Your task to perform on an android device: open app "Duolingo: language lessons" (install if not already installed) and go to login screen Image 0: 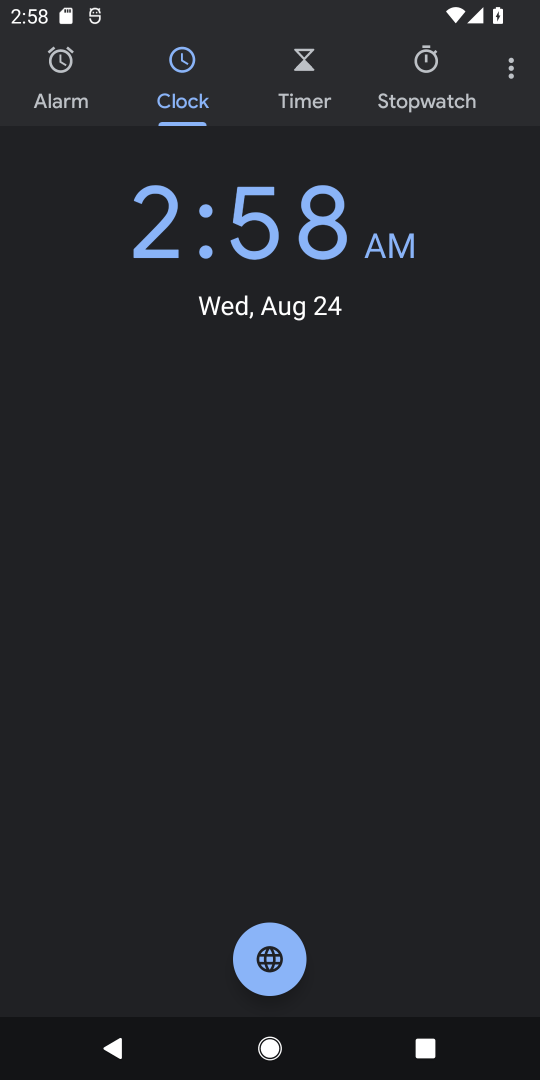
Step 0: press home button
Your task to perform on an android device: open app "Duolingo: language lessons" (install if not already installed) and go to login screen Image 1: 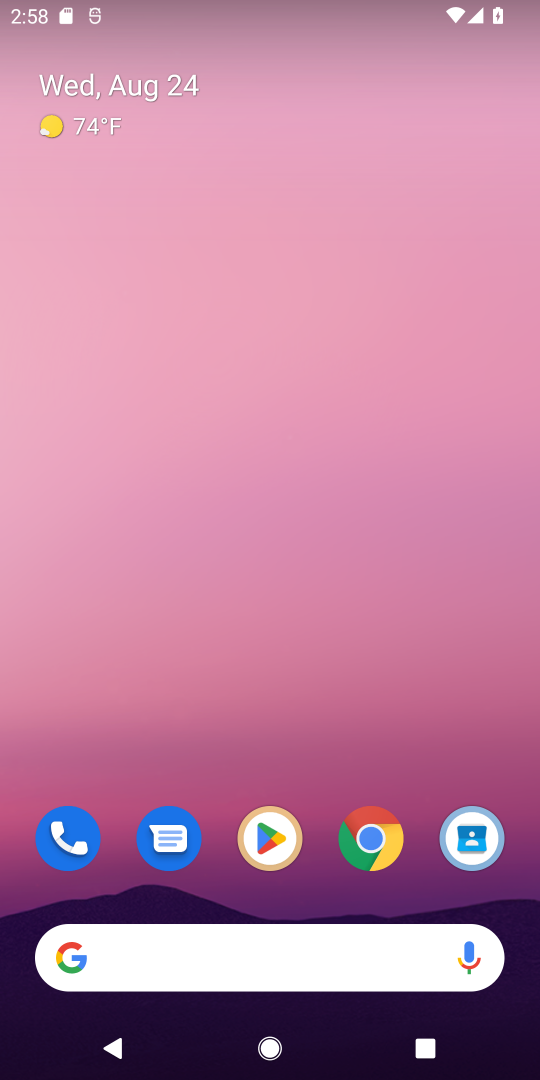
Step 1: click (261, 824)
Your task to perform on an android device: open app "Duolingo: language lessons" (install if not already installed) and go to login screen Image 2: 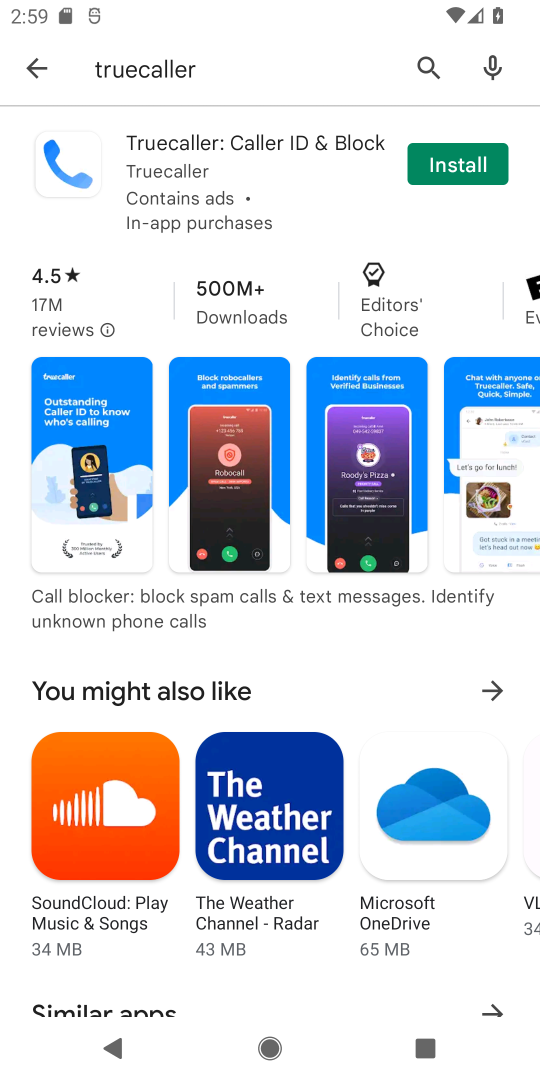
Step 2: click (428, 70)
Your task to perform on an android device: open app "Duolingo: language lessons" (install if not already installed) and go to login screen Image 3: 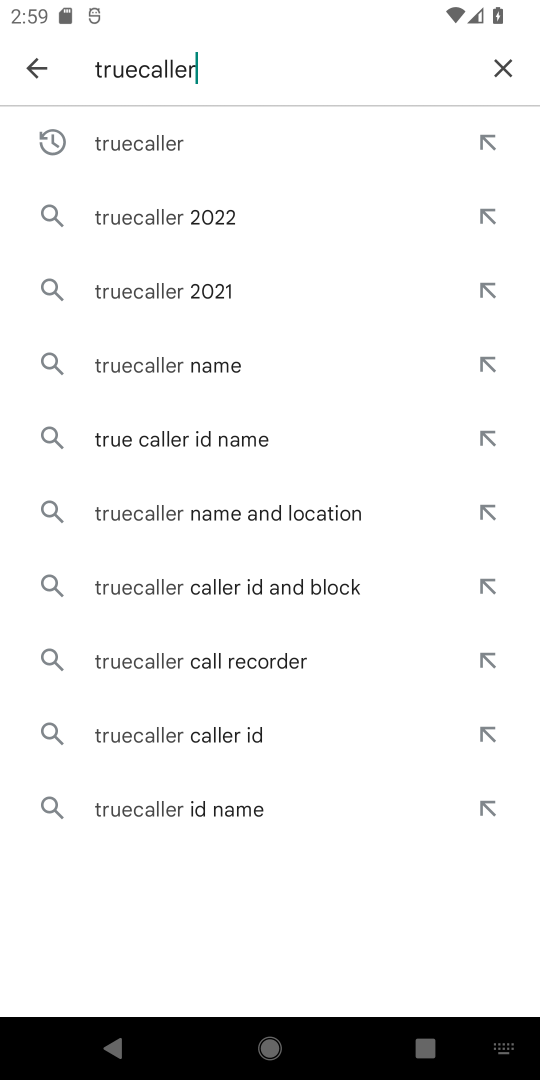
Step 3: click (505, 70)
Your task to perform on an android device: open app "Duolingo: language lessons" (install if not already installed) and go to login screen Image 4: 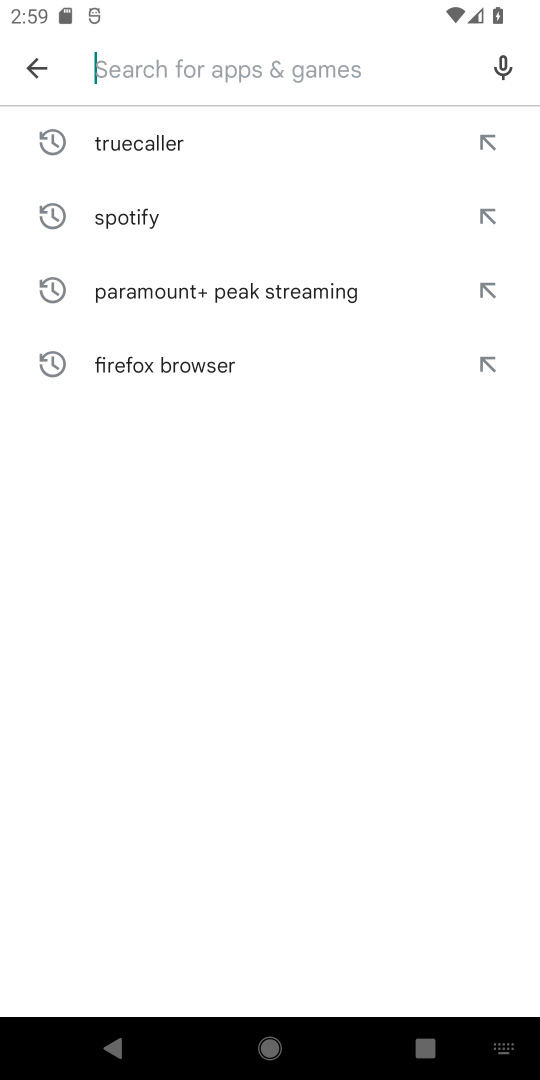
Step 4: type "Duolingo"
Your task to perform on an android device: open app "Duolingo: language lessons" (install if not already installed) and go to login screen Image 5: 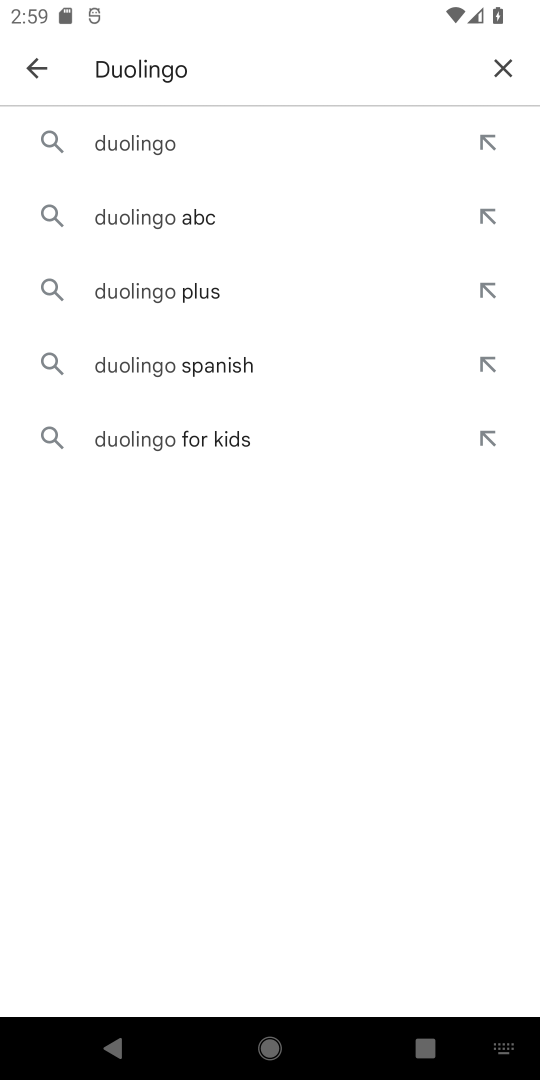
Step 5: click (154, 144)
Your task to perform on an android device: open app "Duolingo: language lessons" (install if not already installed) and go to login screen Image 6: 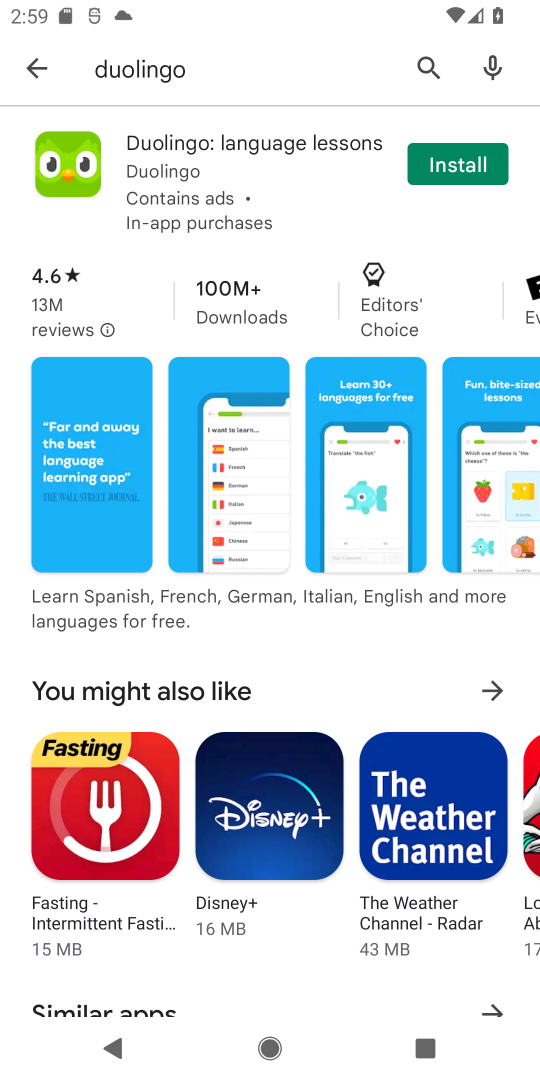
Step 6: click (510, 173)
Your task to perform on an android device: open app "Duolingo: language lessons" (install if not already installed) and go to login screen Image 7: 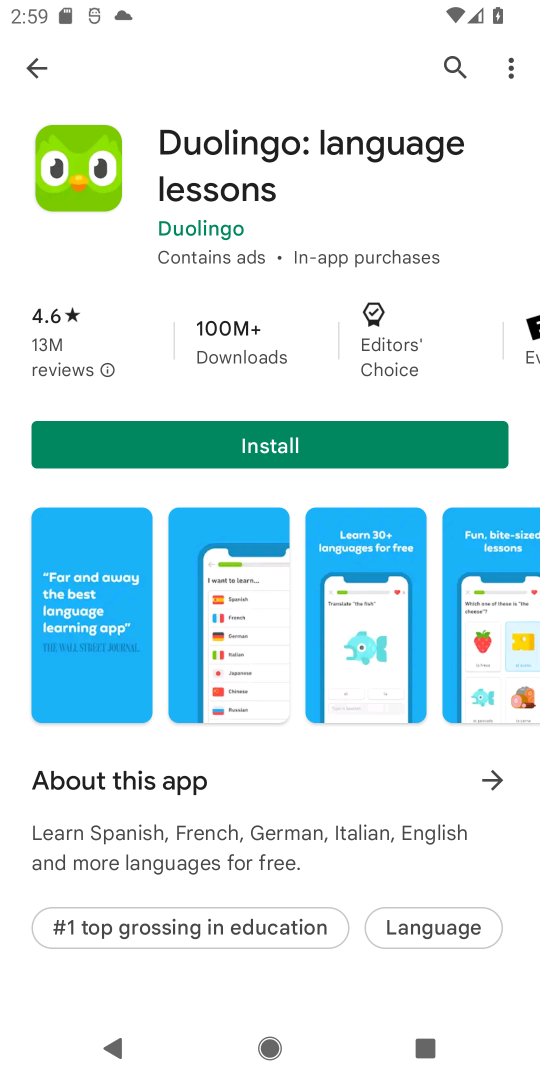
Step 7: click (217, 458)
Your task to perform on an android device: open app "Duolingo: language lessons" (install if not already installed) and go to login screen Image 8: 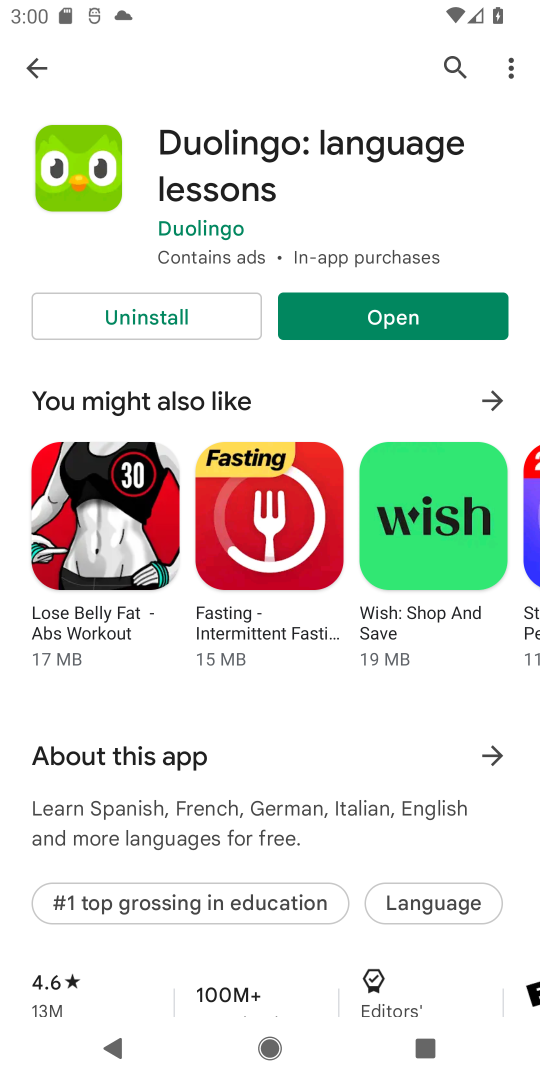
Step 8: click (370, 322)
Your task to perform on an android device: open app "Duolingo: language lessons" (install if not already installed) and go to login screen Image 9: 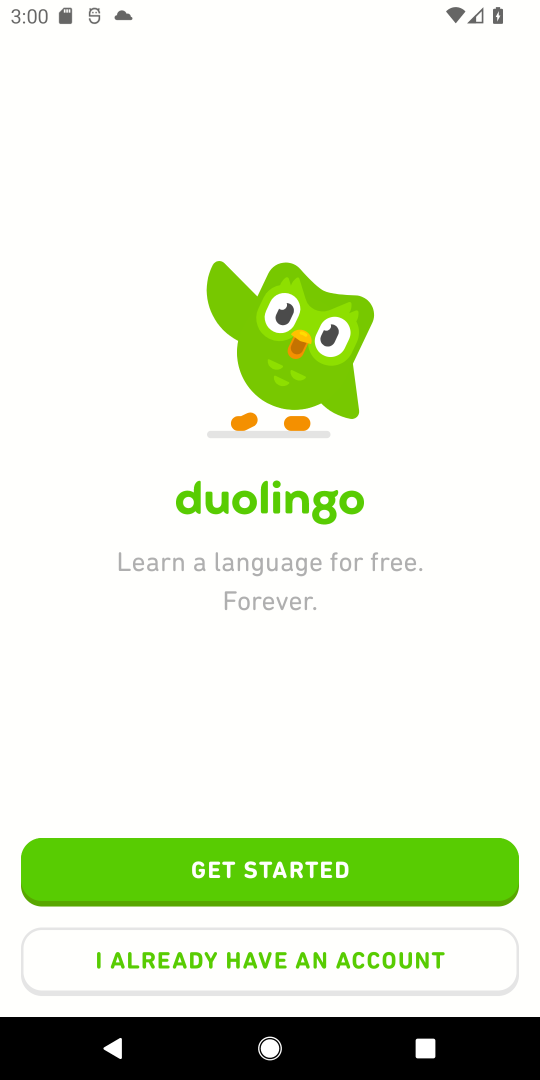
Step 9: click (354, 949)
Your task to perform on an android device: open app "Duolingo: language lessons" (install if not already installed) and go to login screen Image 10: 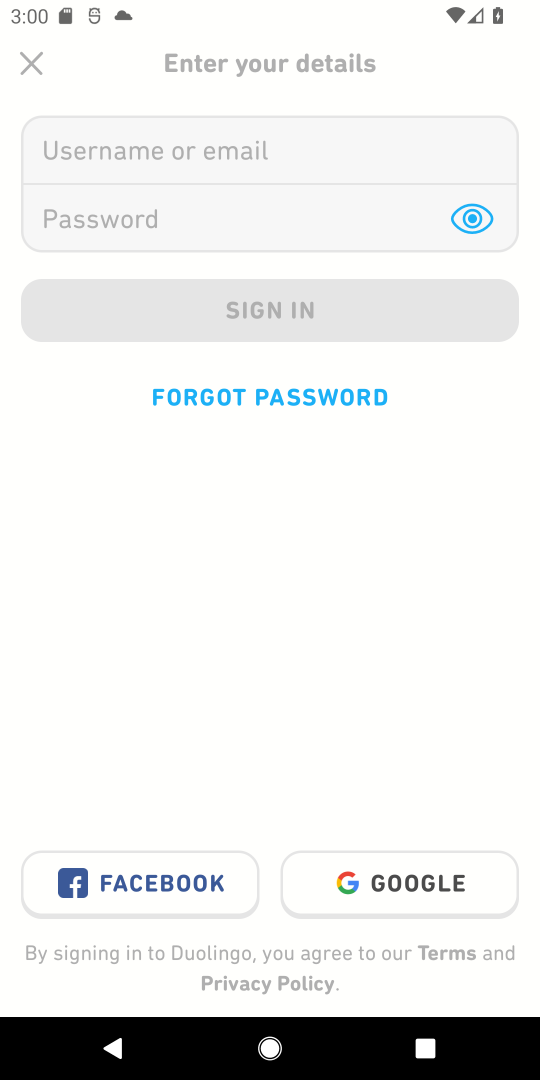
Step 10: task complete